Your task to perform on an android device: toggle priority inbox in the gmail app Image 0: 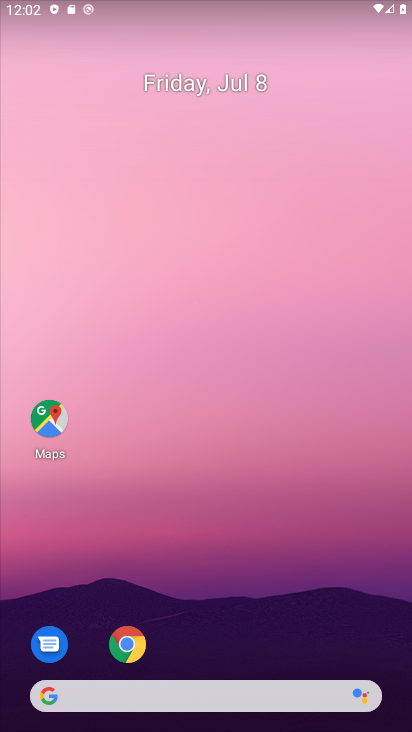
Step 0: drag from (235, 711) to (169, 322)
Your task to perform on an android device: toggle priority inbox in the gmail app Image 1: 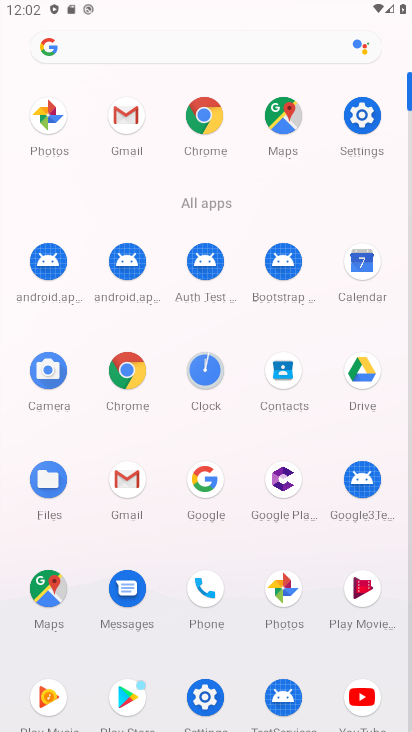
Step 1: click (143, 492)
Your task to perform on an android device: toggle priority inbox in the gmail app Image 2: 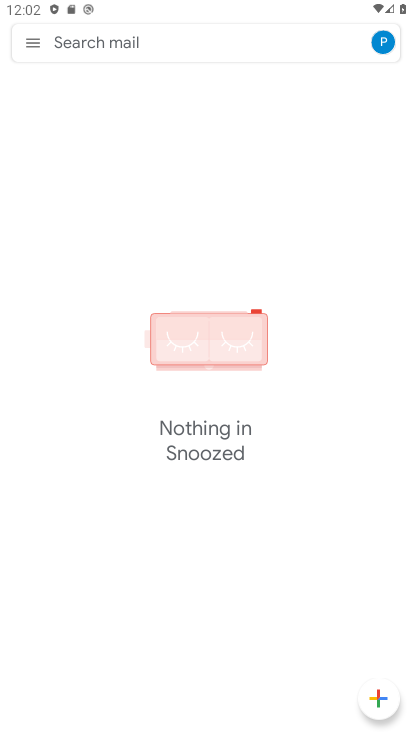
Step 2: click (37, 37)
Your task to perform on an android device: toggle priority inbox in the gmail app Image 3: 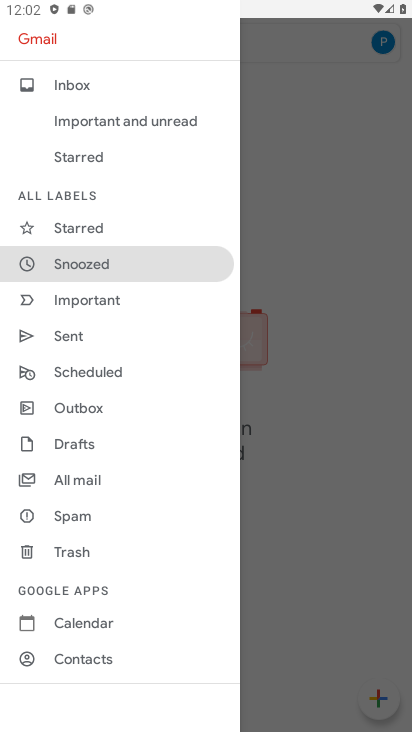
Step 3: drag from (132, 520) to (95, 200)
Your task to perform on an android device: toggle priority inbox in the gmail app Image 4: 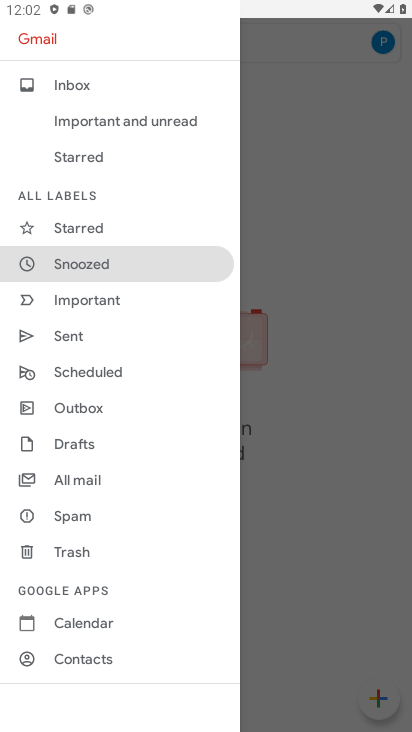
Step 4: drag from (57, 612) to (24, 102)
Your task to perform on an android device: toggle priority inbox in the gmail app Image 5: 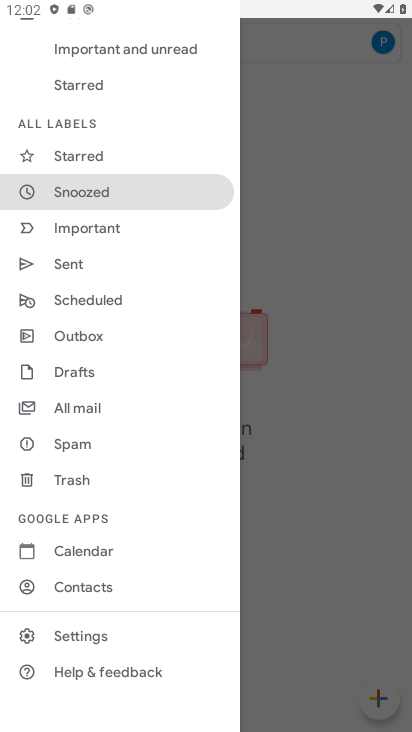
Step 5: click (77, 640)
Your task to perform on an android device: toggle priority inbox in the gmail app Image 6: 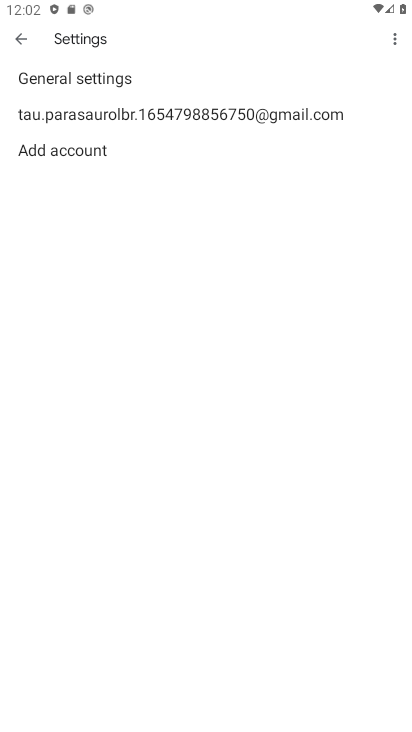
Step 6: click (253, 122)
Your task to perform on an android device: toggle priority inbox in the gmail app Image 7: 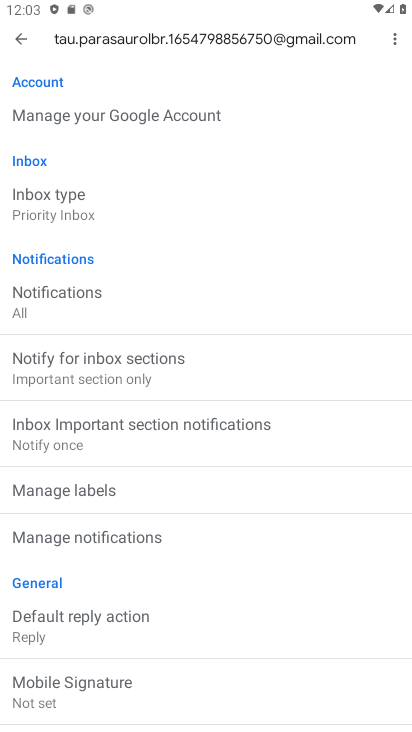
Step 7: click (94, 207)
Your task to perform on an android device: toggle priority inbox in the gmail app Image 8: 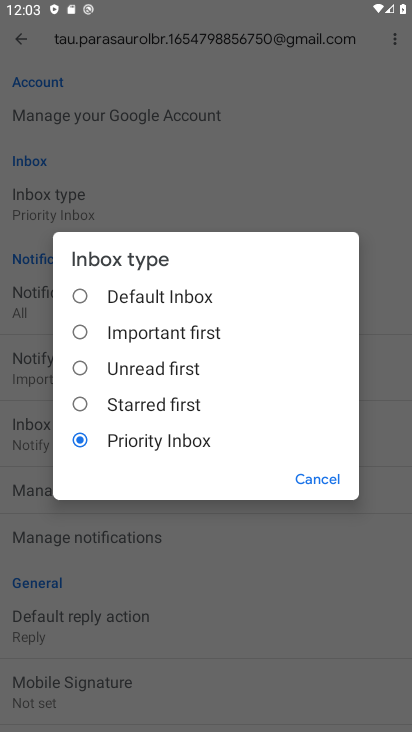
Step 8: click (139, 300)
Your task to perform on an android device: toggle priority inbox in the gmail app Image 9: 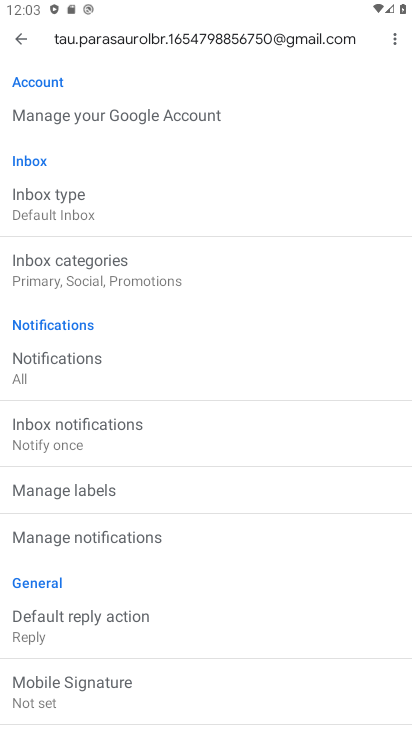
Step 9: task complete